Your task to perform on an android device: open app "Upside-Cash back on gas & food" (install if not already installed) and go to login screen Image 0: 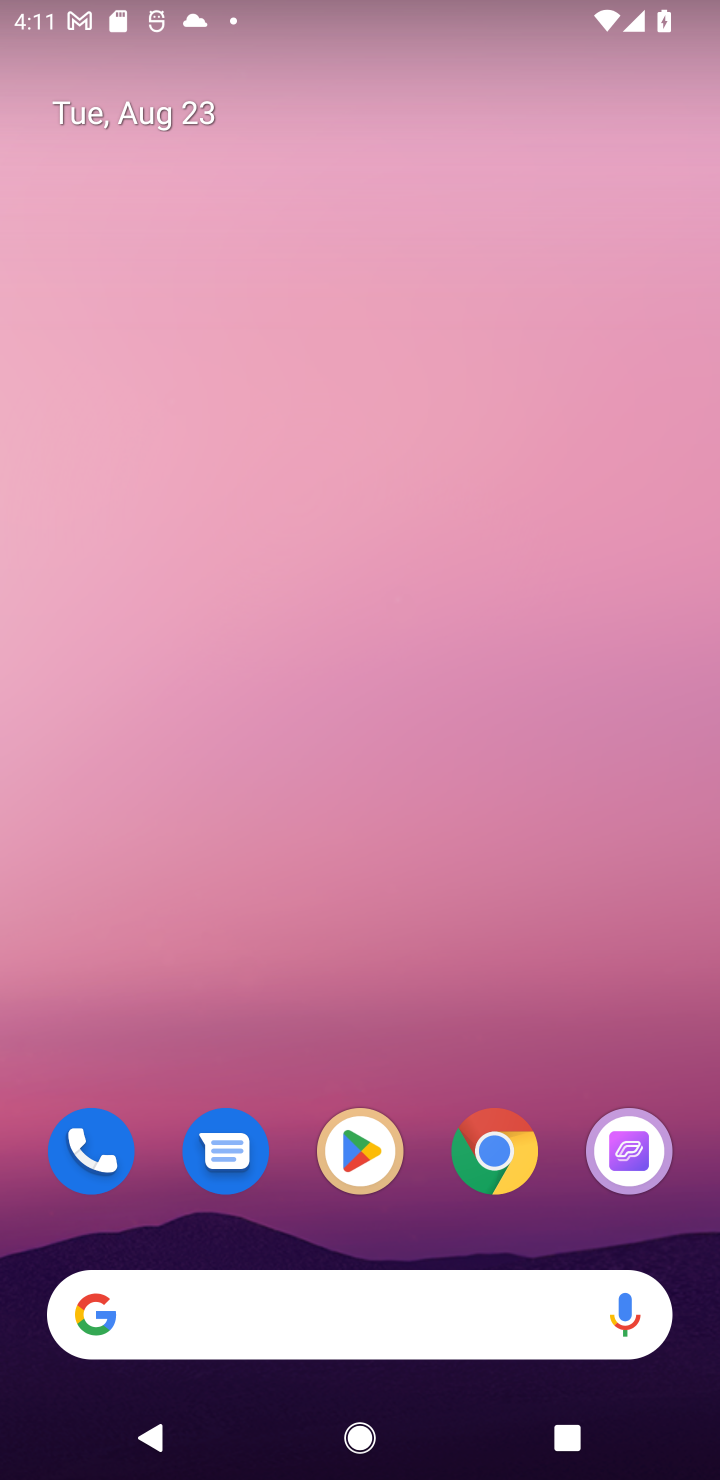
Step 0: press home button
Your task to perform on an android device: open app "Upside-Cash back on gas & food" (install if not already installed) and go to login screen Image 1: 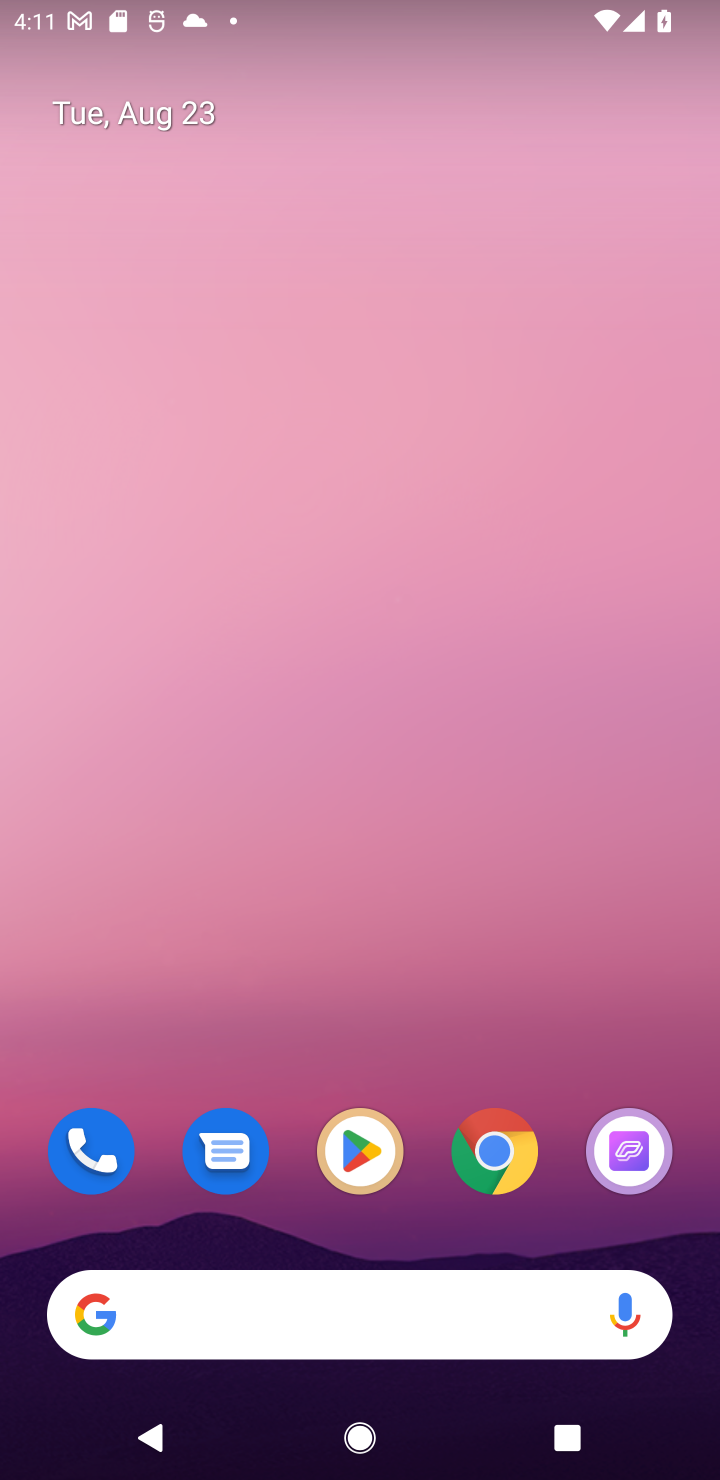
Step 1: click (343, 1140)
Your task to perform on an android device: open app "Upside-Cash back on gas & food" (install if not already installed) and go to login screen Image 2: 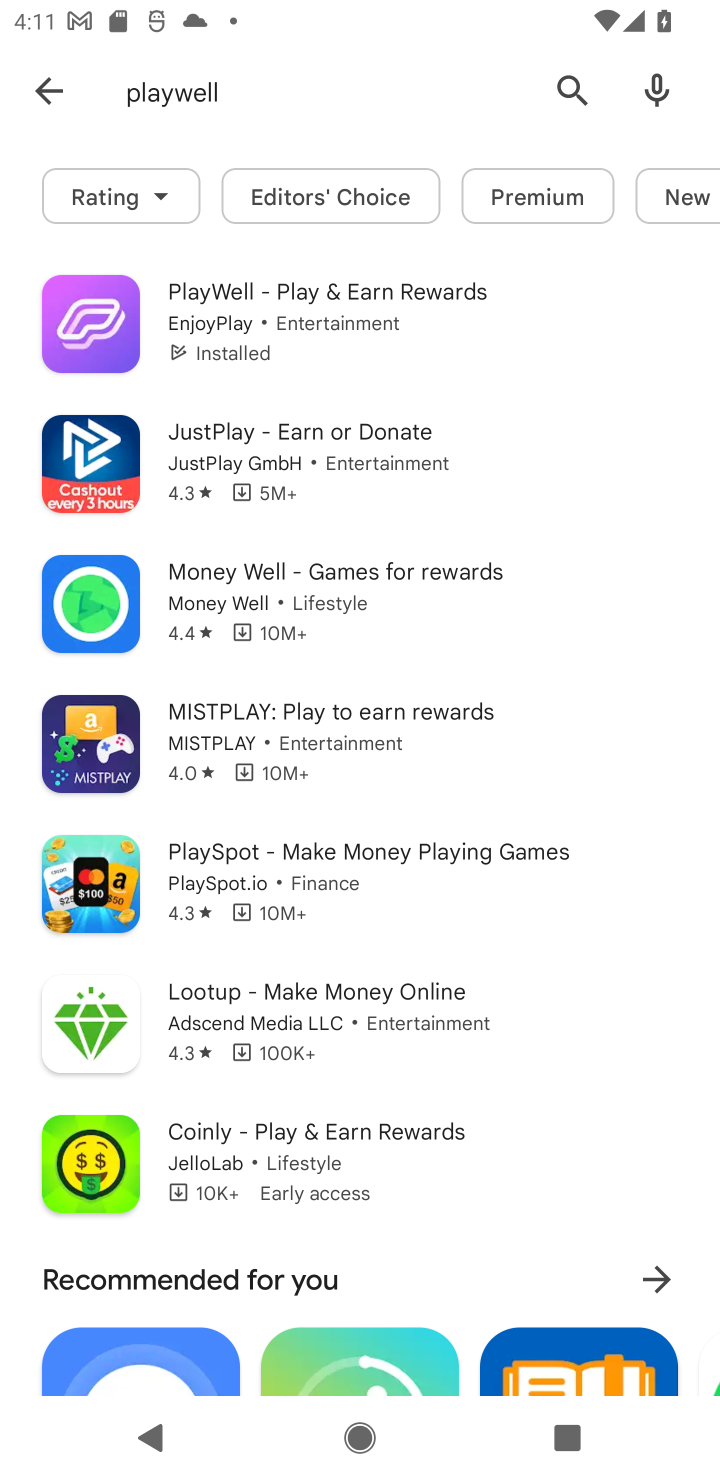
Step 2: click (589, 76)
Your task to perform on an android device: open app "Upside-Cash back on gas & food" (install if not already installed) and go to login screen Image 3: 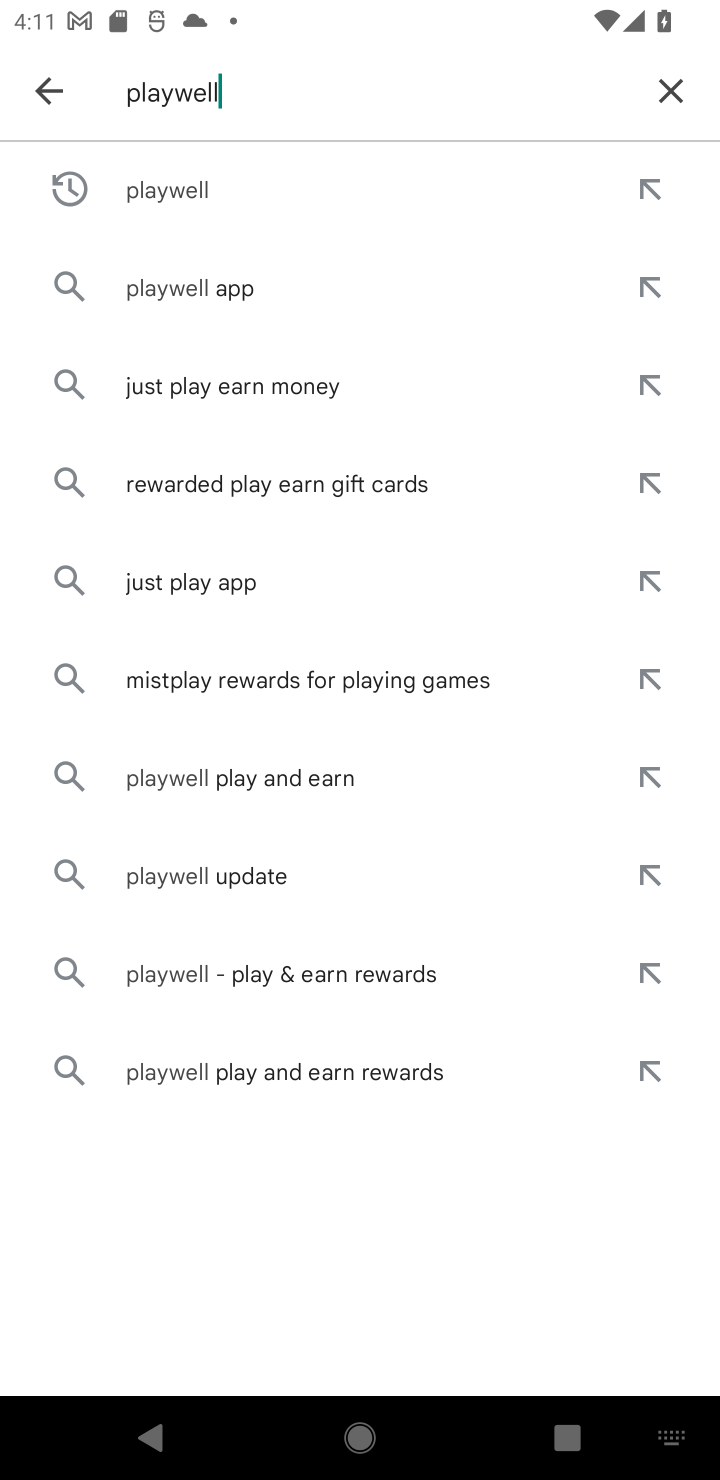
Step 3: click (684, 84)
Your task to perform on an android device: open app "Upside-Cash back on gas & food" (install if not already installed) and go to login screen Image 4: 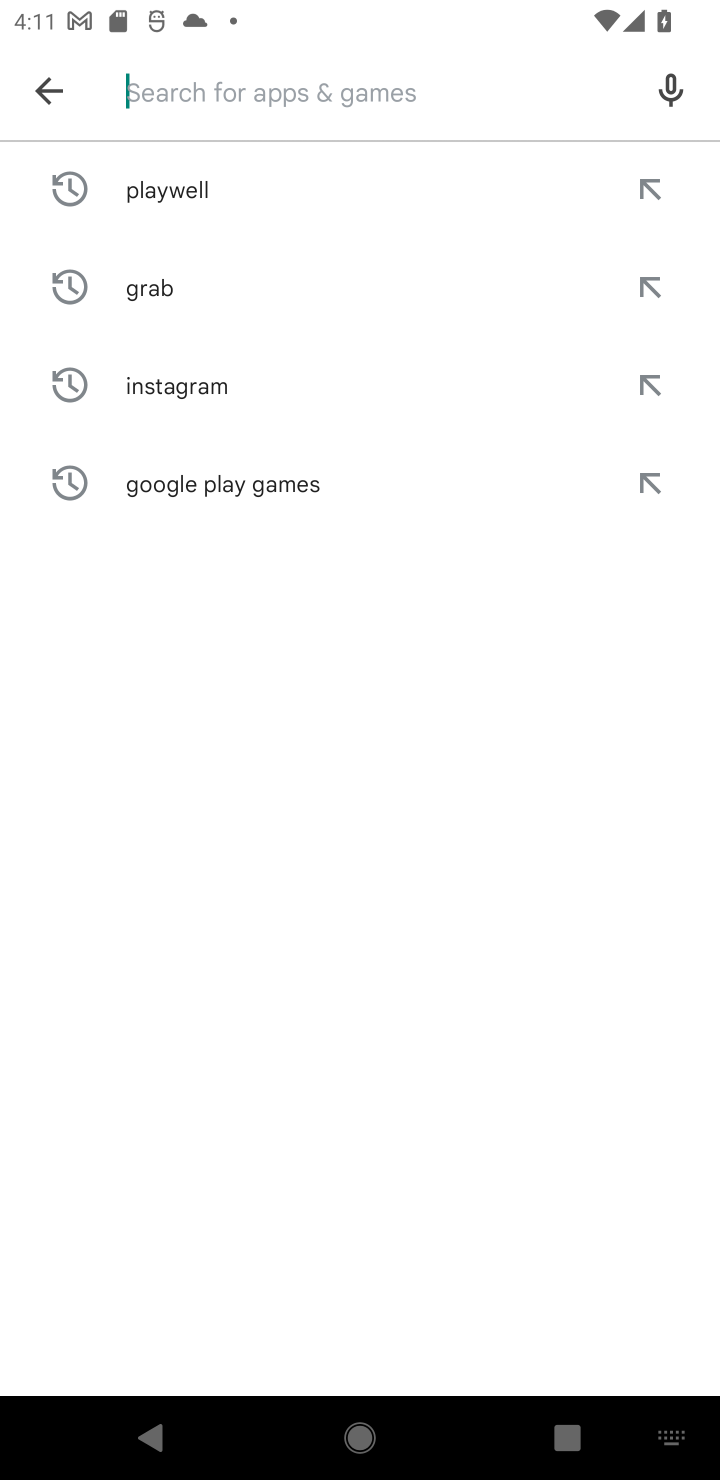
Step 4: type "Upside-Cash back on gas & food"
Your task to perform on an android device: open app "Upside-Cash back on gas & food" (install if not already installed) and go to login screen Image 5: 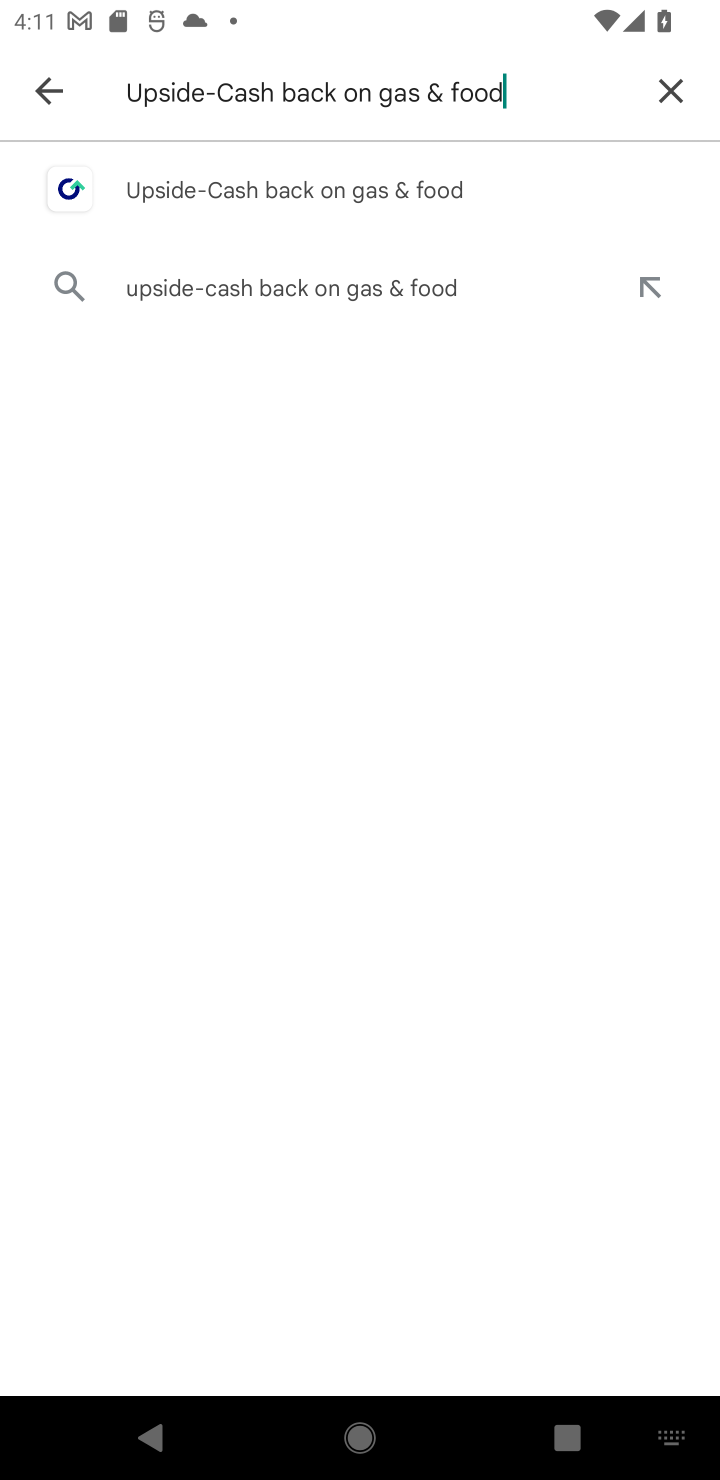
Step 5: click (210, 191)
Your task to perform on an android device: open app "Upside-Cash back on gas & food" (install if not already installed) and go to login screen Image 6: 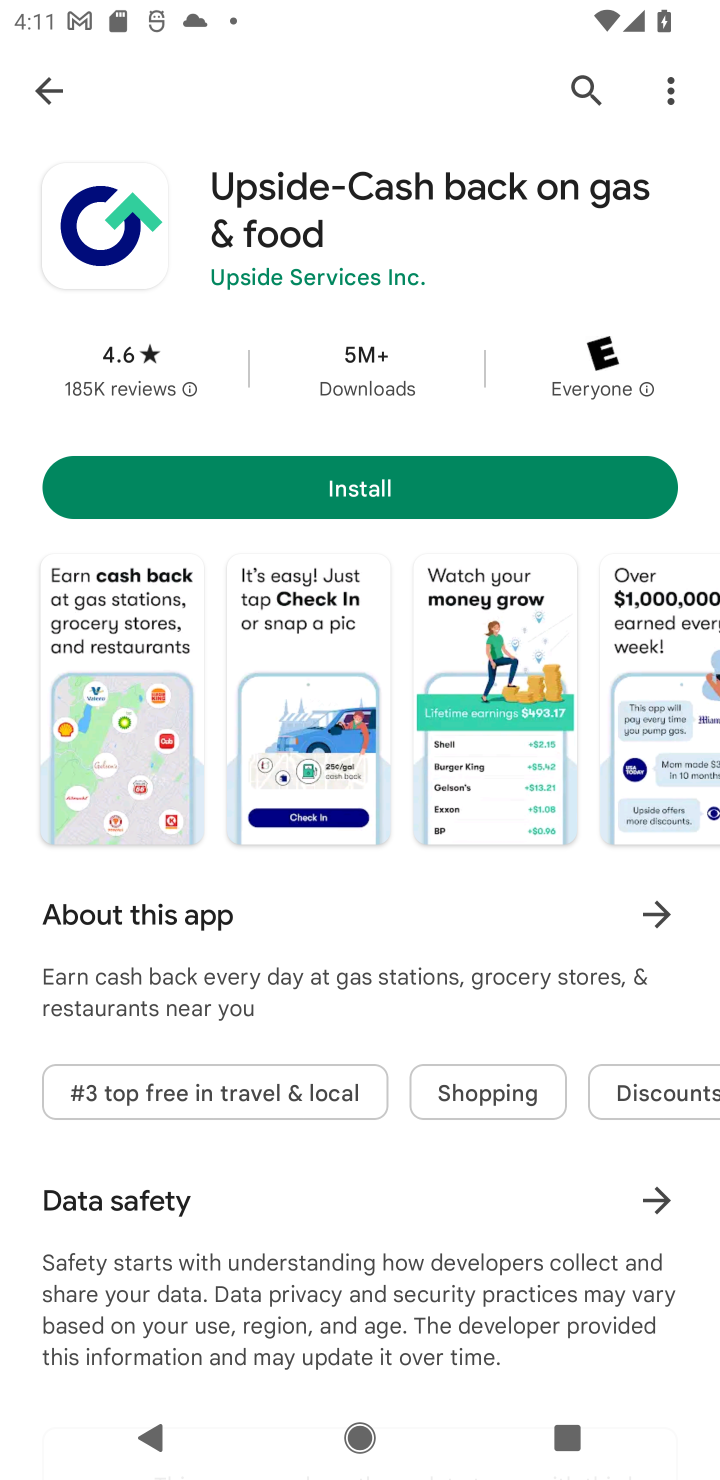
Step 6: click (385, 498)
Your task to perform on an android device: open app "Upside-Cash back on gas & food" (install if not already installed) and go to login screen Image 7: 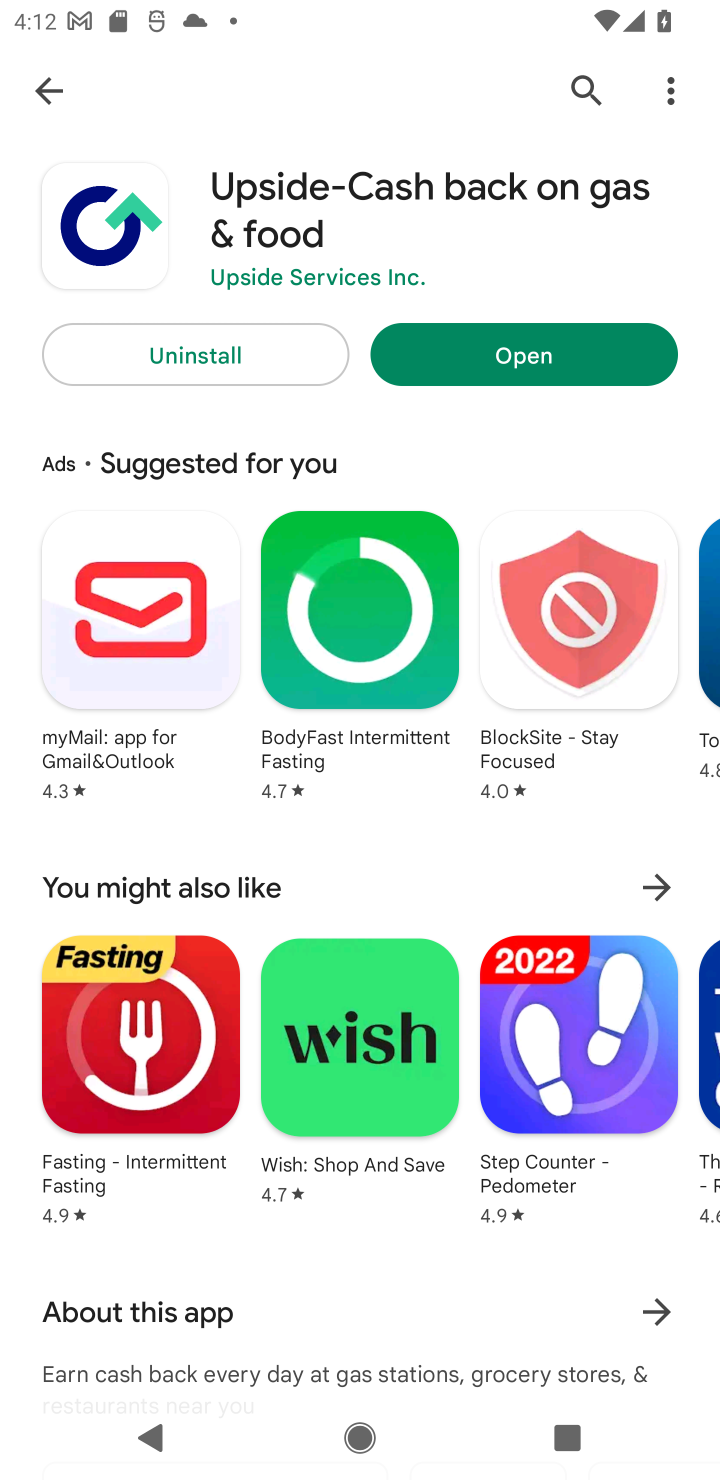
Step 7: click (536, 368)
Your task to perform on an android device: open app "Upside-Cash back on gas & food" (install if not already installed) and go to login screen Image 8: 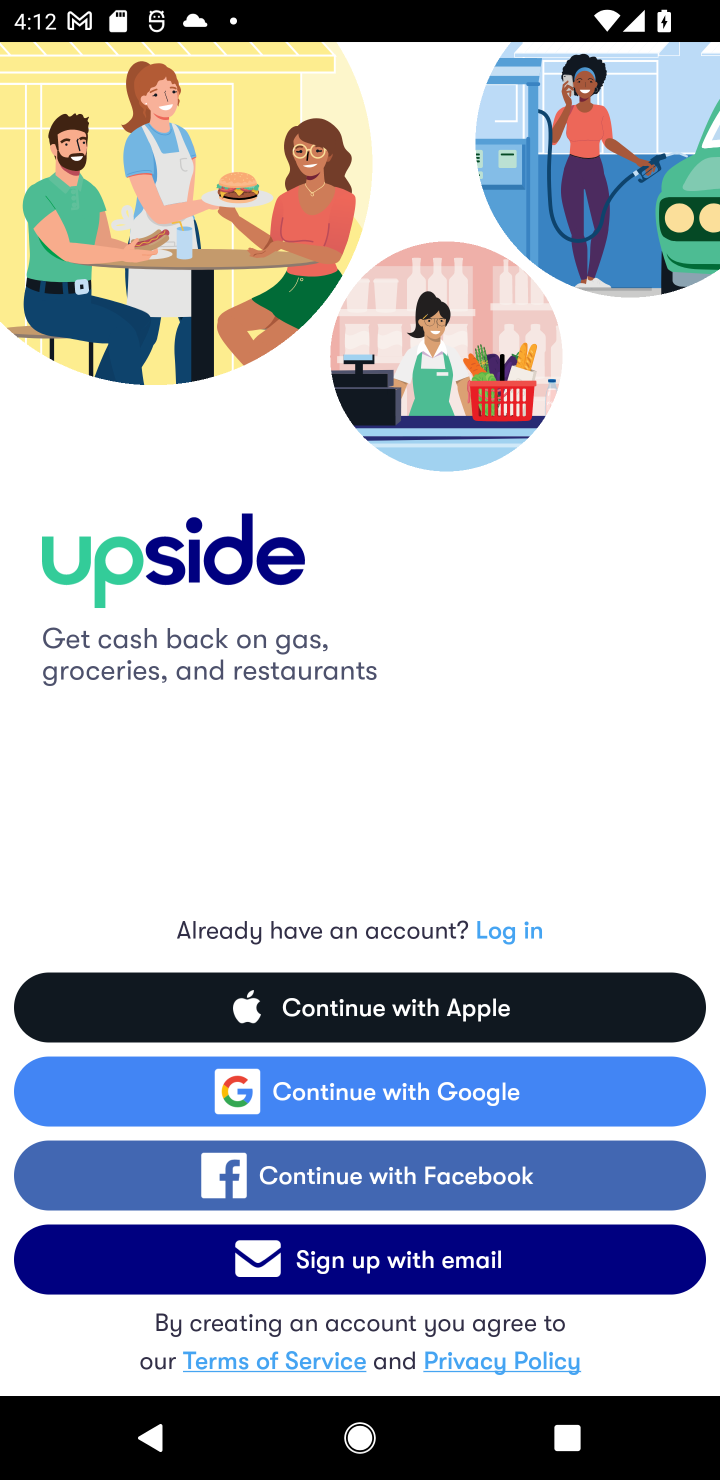
Step 8: task complete